Your task to perform on an android device: open app "Viber Messenger" (install if not already installed) and enter user name: "blameless@icloud.com" and password: "Yoknapatawpha" Image 0: 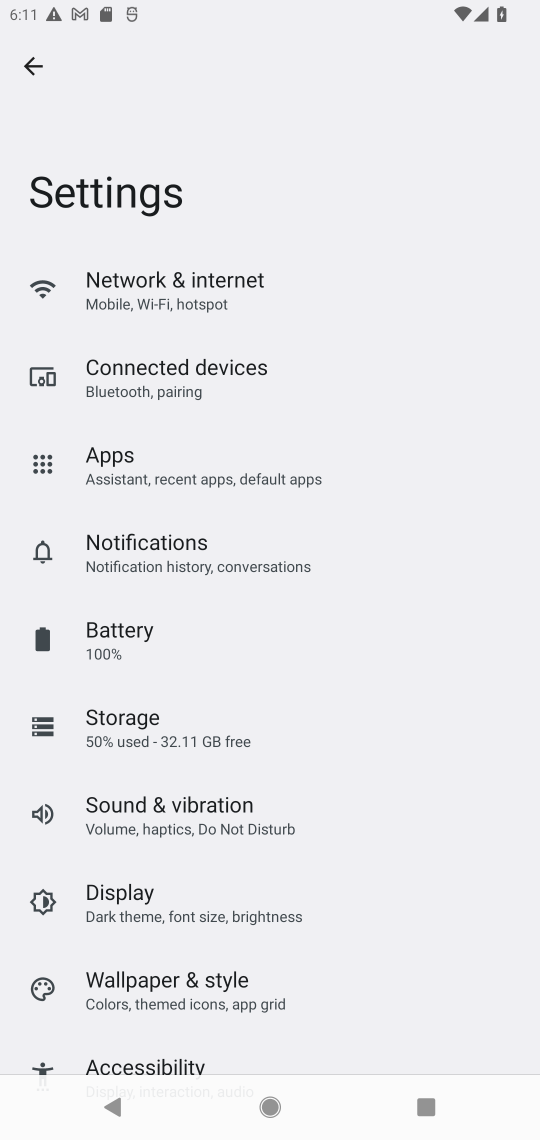
Step 0: press home button
Your task to perform on an android device: open app "Viber Messenger" (install if not already installed) and enter user name: "blameless@icloud.com" and password: "Yoknapatawpha" Image 1: 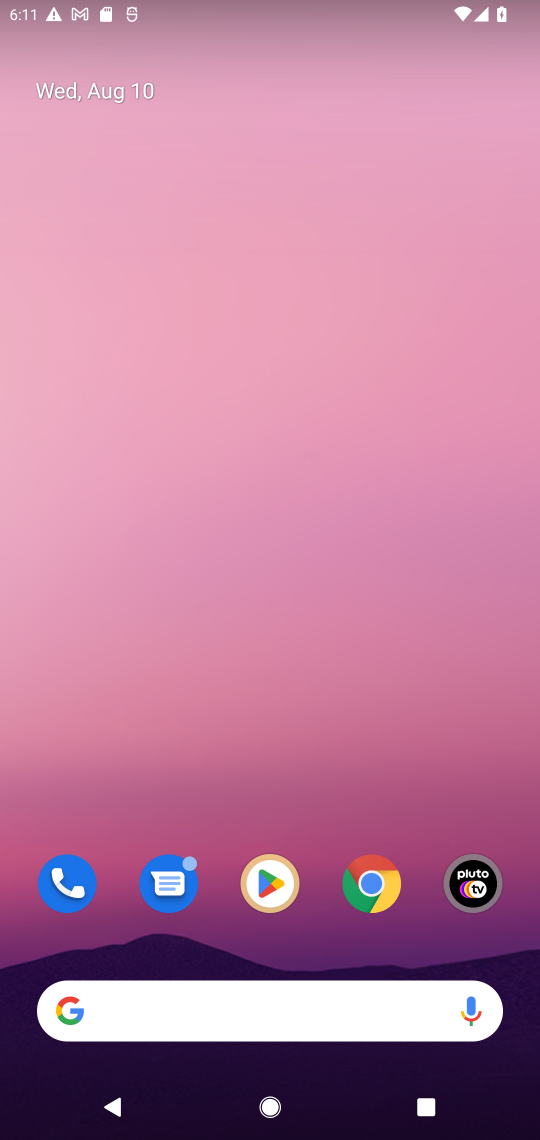
Step 1: click (264, 871)
Your task to perform on an android device: open app "Viber Messenger" (install if not already installed) and enter user name: "blameless@icloud.com" and password: "Yoknapatawpha" Image 2: 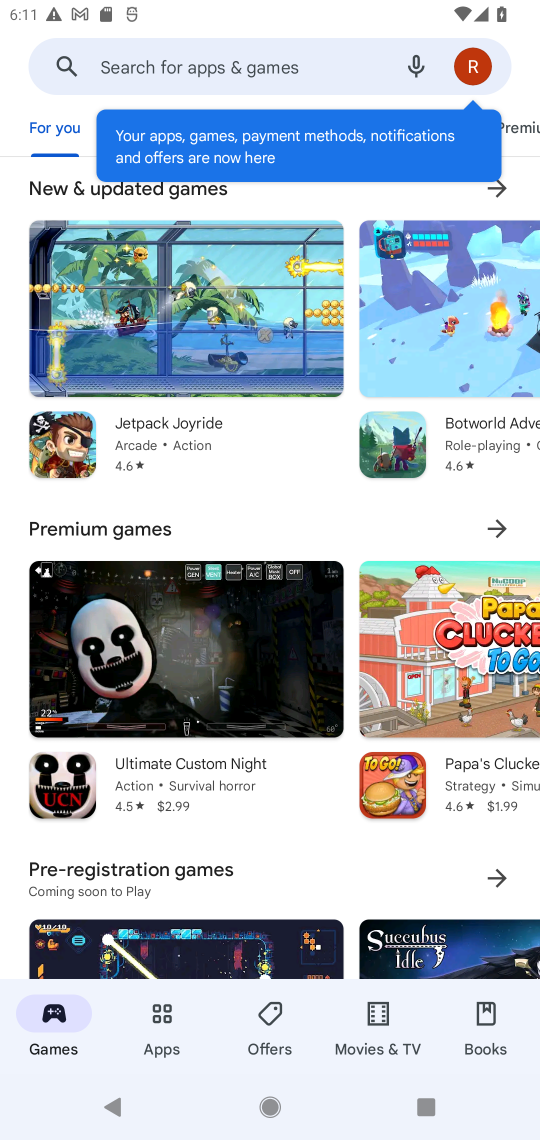
Step 2: click (261, 68)
Your task to perform on an android device: open app "Viber Messenger" (install if not already installed) and enter user name: "blameless@icloud.com" and password: "Yoknapatawpha" Image 3: 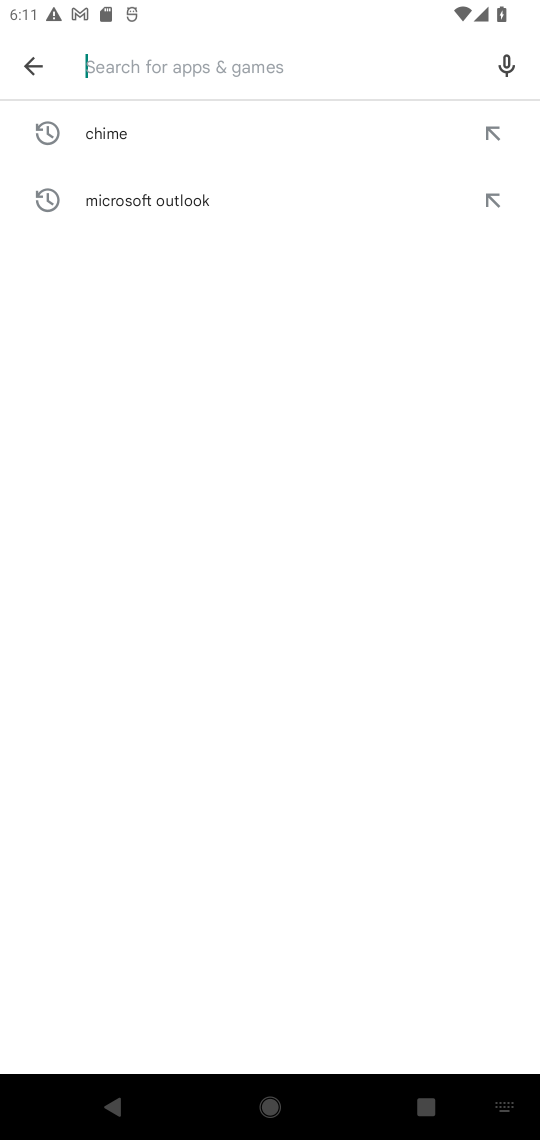
Step 3: type "Viber Messenger"
Your task to perform on an android device: open app "Viber Messenger" (install if not already installed) and enter user name: "blameless@icloud.com" and password: "Yoknapatawpha" Image 4: 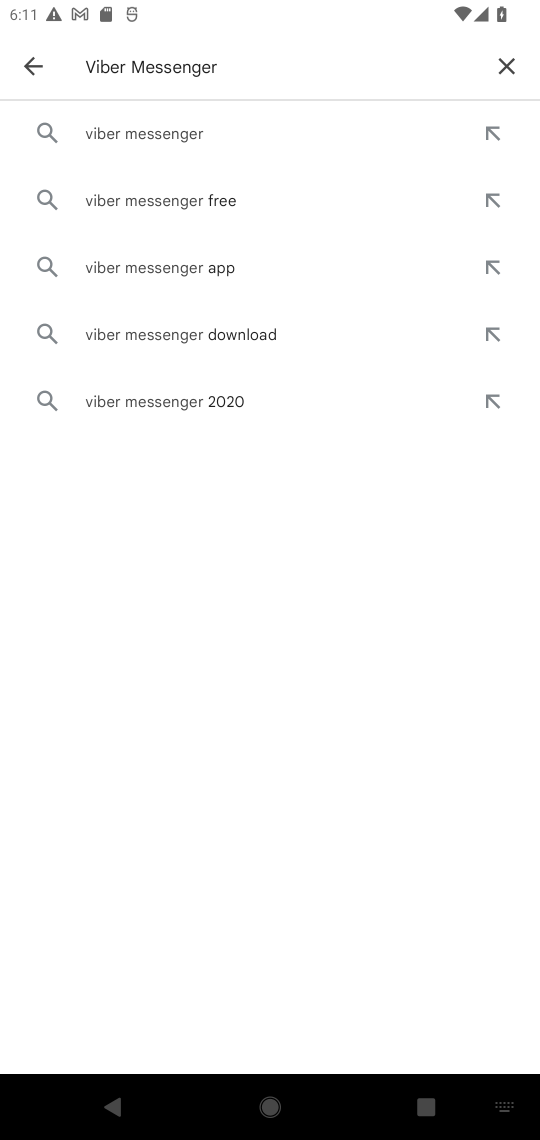
Step 4: click (139, 129)
Your task to perform on an android device: open app "Viber Messenger" (install if not already installed) and enter user name: "blameless@icloud.com" and password: "Yoknapatawpha" Image 5: 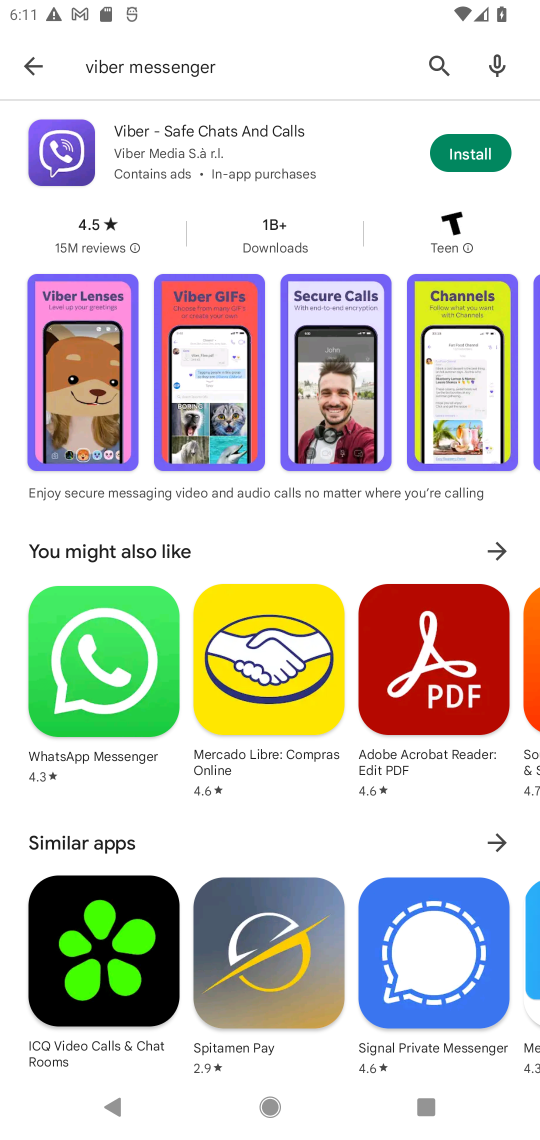
Step 5: click (456, 151)
Your task to perform on an android device: open app "Viber Messenger" (install if not already installed) and enter user name: "blameless@icloud.com" and password: "Yoknapatawpha" Image 6: 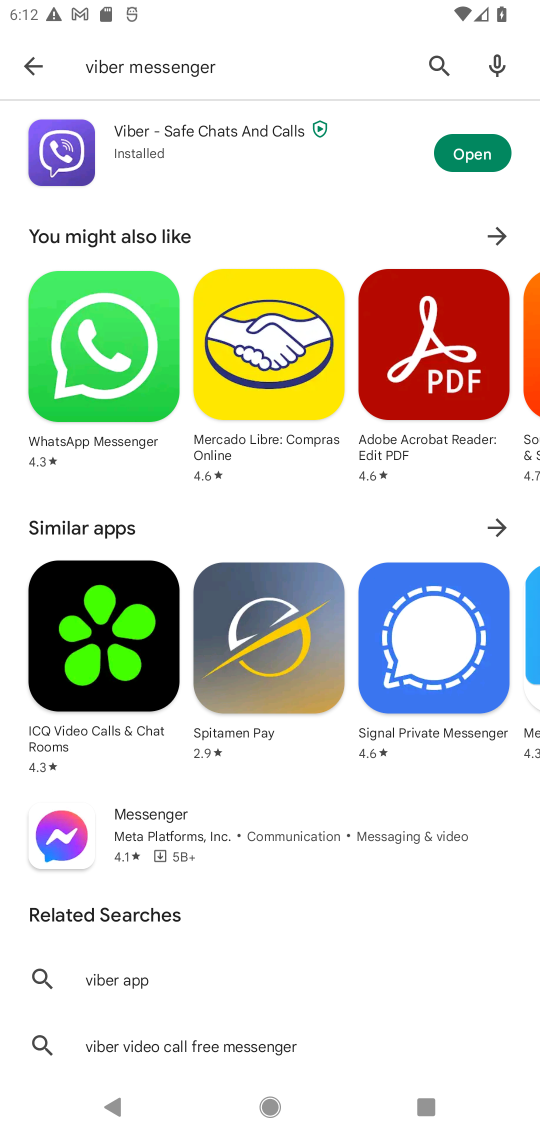
Step 6: click (448, 157)
Your task to perform on an android device: open app "Viber Messenger" (install if not already installed) and enter user name: "blameless@icloud.com" and password: "Yoknapatawpha" Image 7: 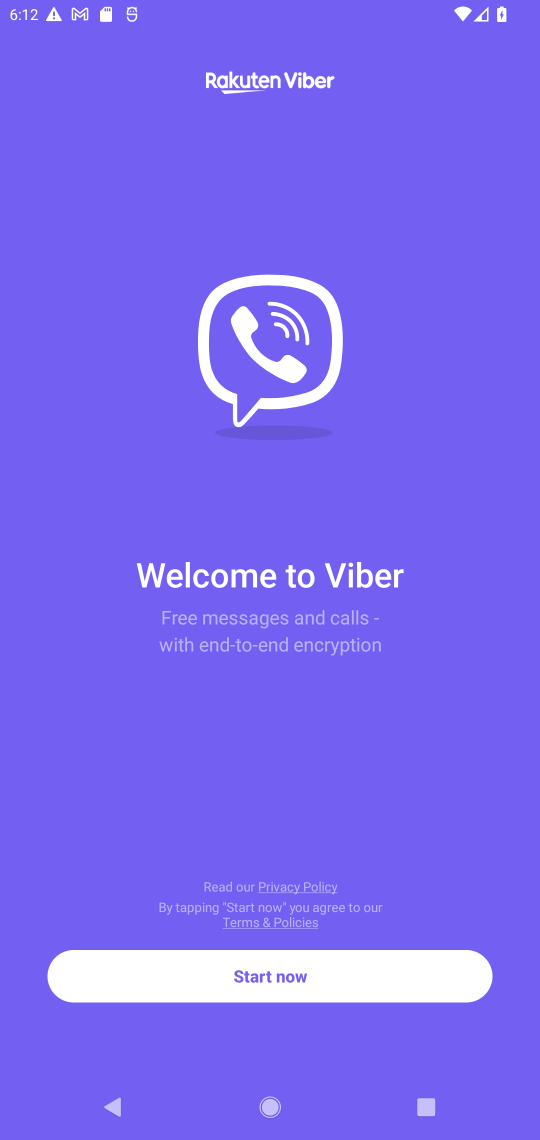
Step 7: task complete